Your task to perform on an android device: set an alarm Image 0: 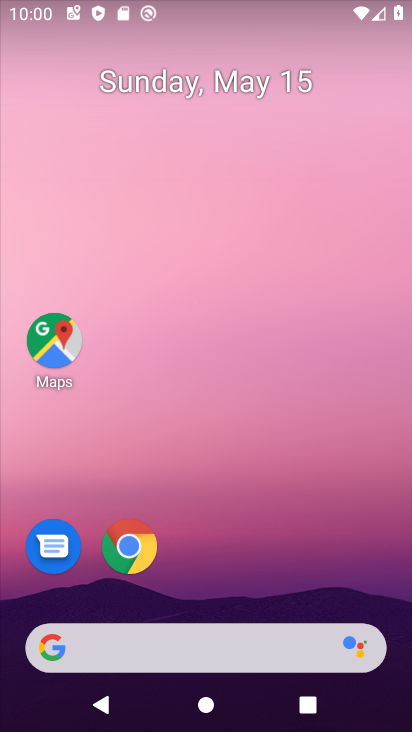
Step 0: drag from (233, 497) to (149, 0)
Your task to perform on an android device: set an alarm Image 1: 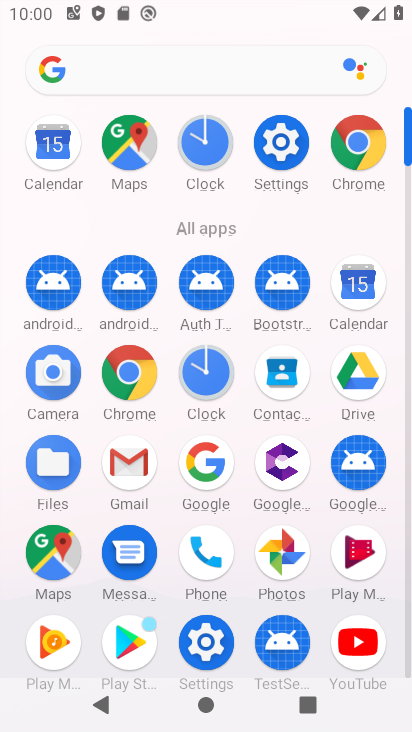
Step 1: click (209, 368)
Your task to perform on an android device: set an alarm Image 2: 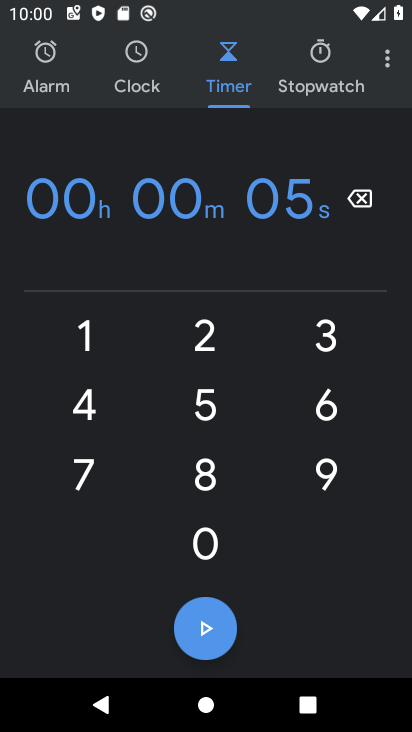
Step 2: click (62, 50)
Your task to perform on an android device: set an alarm Image 3: 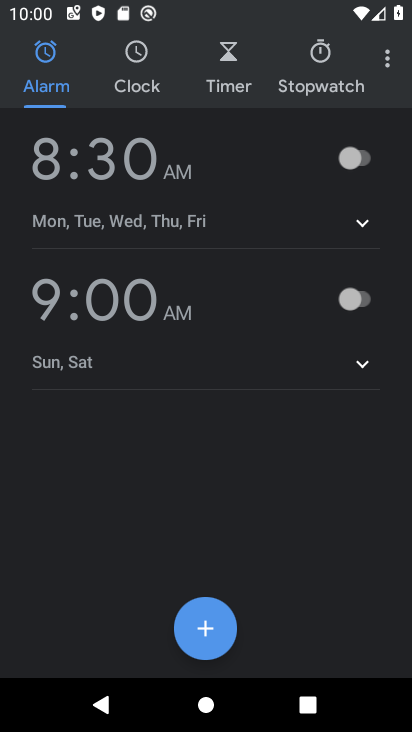
Step 3: click (197, 629)
Your task to perform on an android device: set an alarm Image 4: 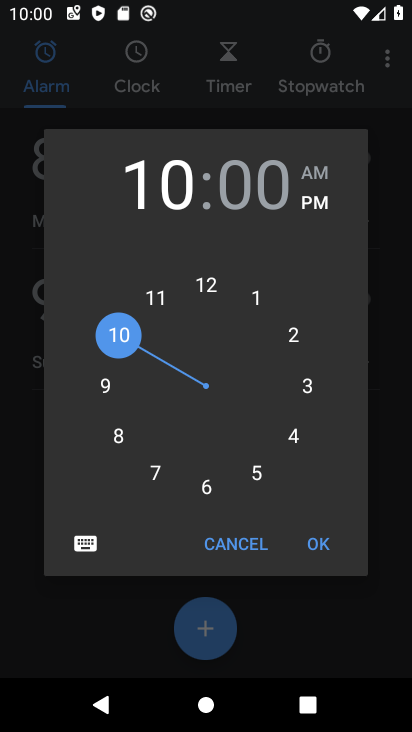
Step 4: click (318, 541)
Your task to perform on an android device: set an alarm Image 5: 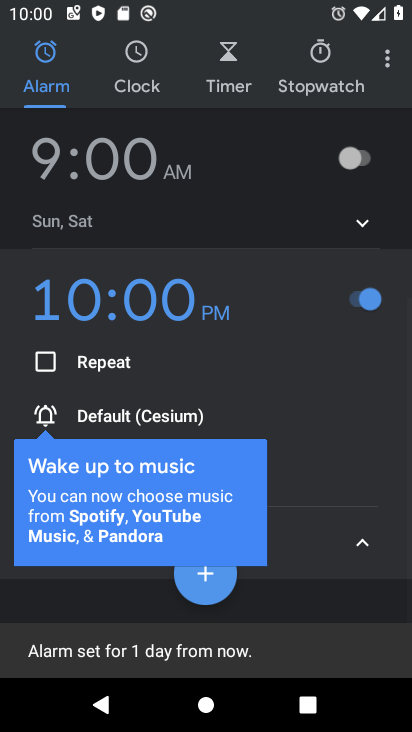
Step 5: task complete